Your task to perform on an android device: Open Reddit.com Image 0: 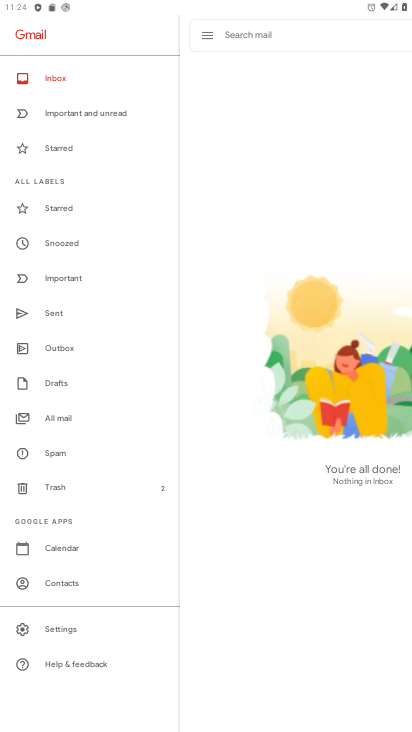
Step 0: press home button
Your task to perform on an android device: Open Reddit.com Image 1: 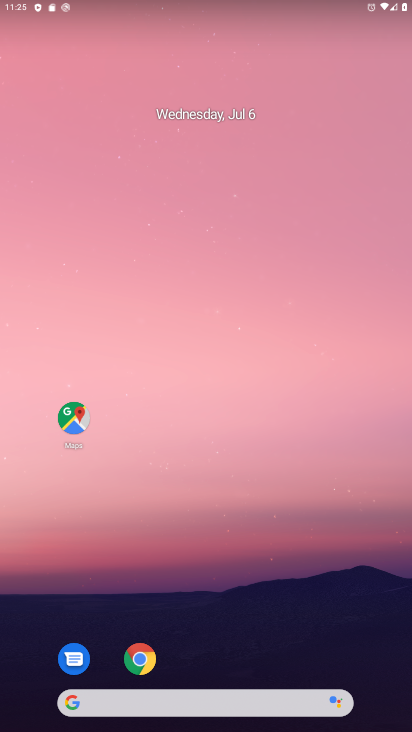
Step 1: click (164, 699)
Your task to perform on an android device: Open Reddit.com Image 2: 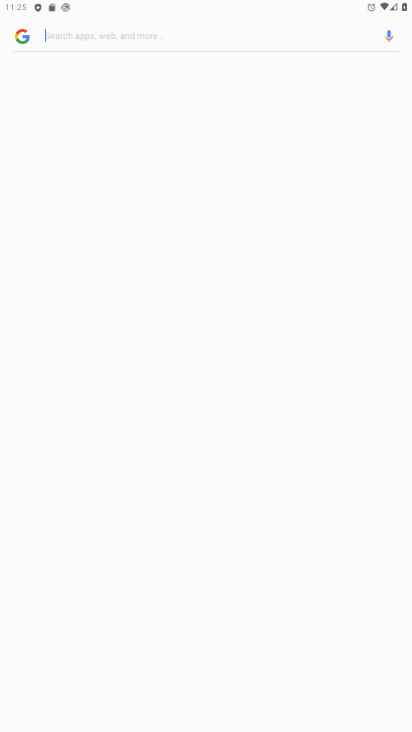
Step 2: click (152, 704)
Your task to perform on an android device: Open Reddit.com Image 3: 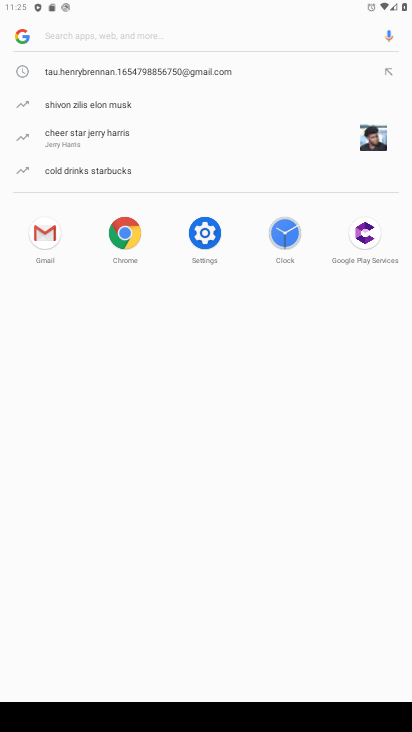
Step 3: click (180, 694)
Your task to perform on an android device: Open Reddit.com Image 4: 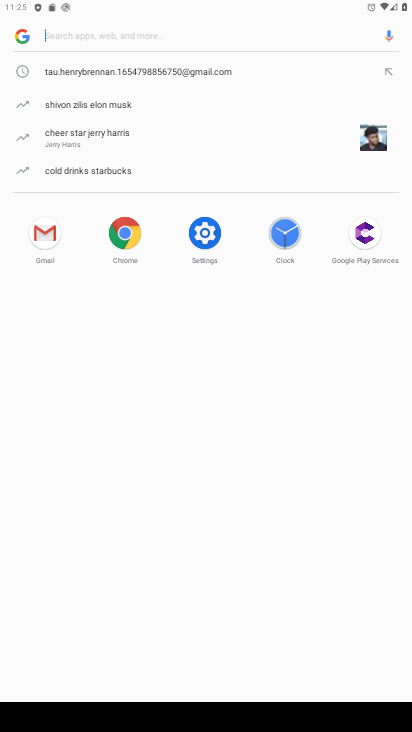
Step 4: click (135, 710)
Your task to perform on an android device: Open Reddit.com Image 5: 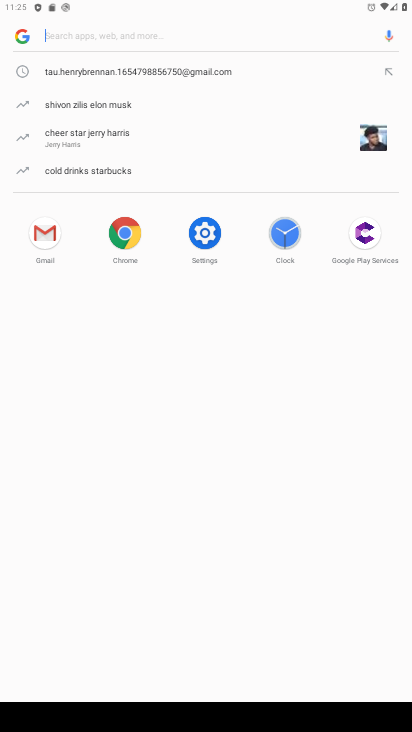
Step 5: click (160, 705)
Your task to perform on an android device: Open Reddit.com Image 6: 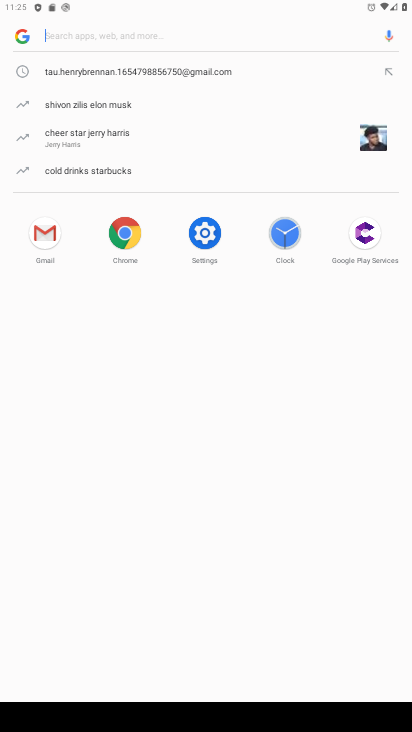
Step 6: type "reddit"
Your task to perform on an android device: Open Reddit.com Image 7: 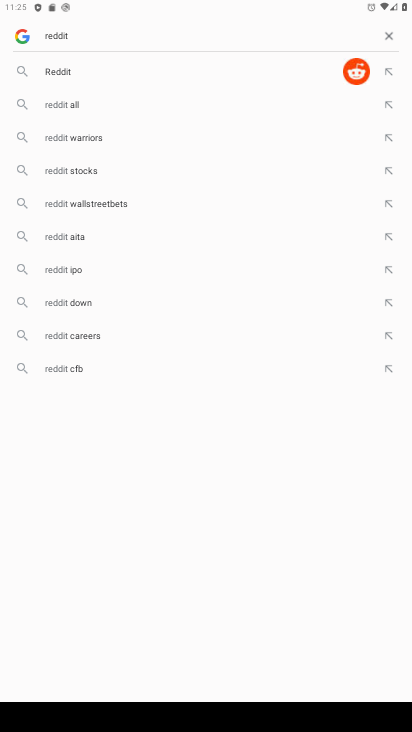
Step 7: click (282, 61)
Your task to perform on an android device: Open Reddit.com Image 8: 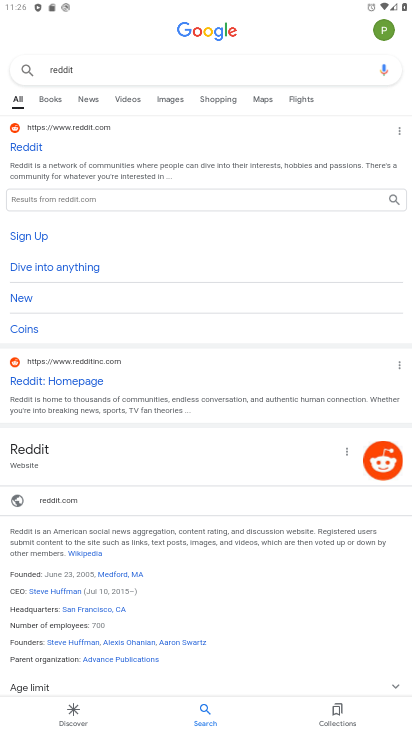
Step 8: click (33, 143)
Your task to perform on an android device: Open Reddit.com Image 9: 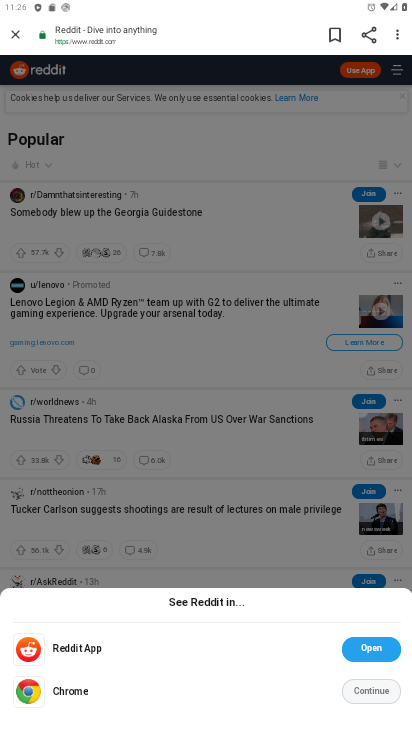
Step 9: click (359, 643)
Your task to perform on an android device: Open Reddit.com Image 10: 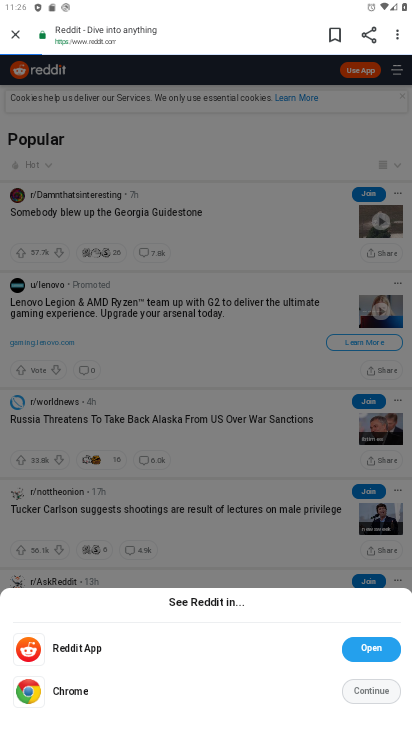
Step 10: task complete